Your task to perform on an android device: change the clock display to analog Image 0: 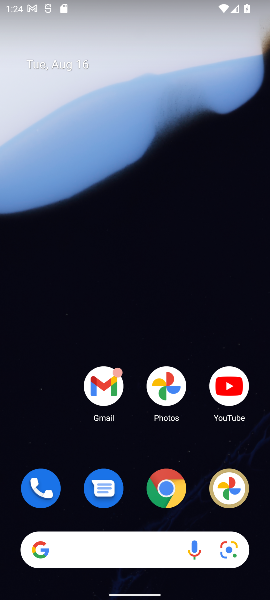
Step 0: drag from (64, 350) to (119, 116)
Your task to perform on an android device: change the clock display to analog Image 1: 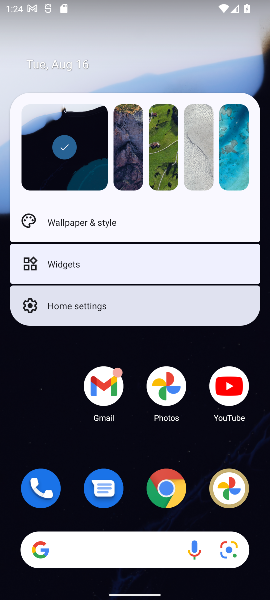
Step 1: click (45, 361)
Your task to perform on an android device: change the clock display to analog Image 2: 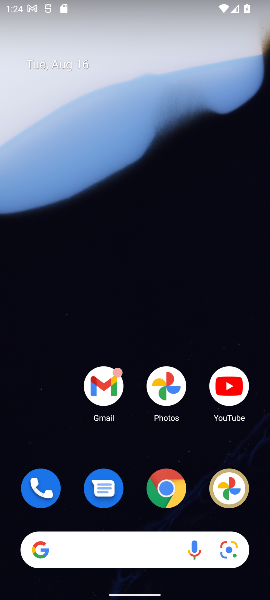
Step 2: drag from (151, 339) to (157, 114)
Your task to perform on an android device: change the clock display to analog Image 3: 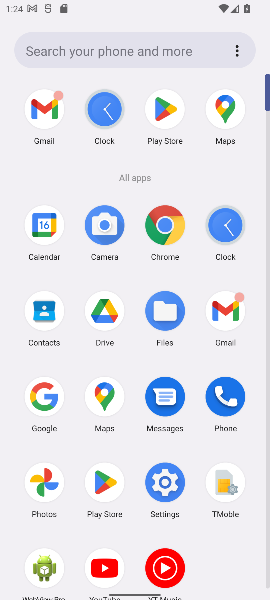
Step 3: click (161, 488)
Your task to perform on an android device: change the clock display to analog Image 4: 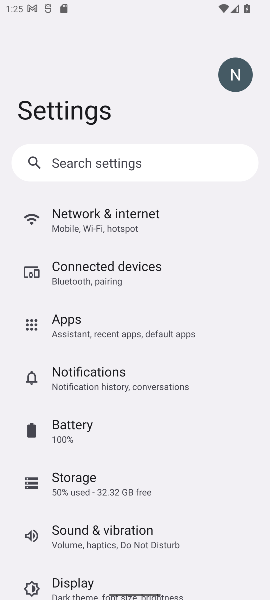
Step 4: drag from (97, 327) to (73, 196)
Your task to perform on an android device: change the clock display to analog Image 5: 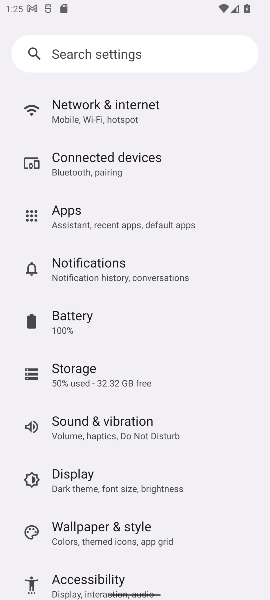
Step 5: click (114, 479)
Your task to perform on an android device: change the clock display to analog Image 6: 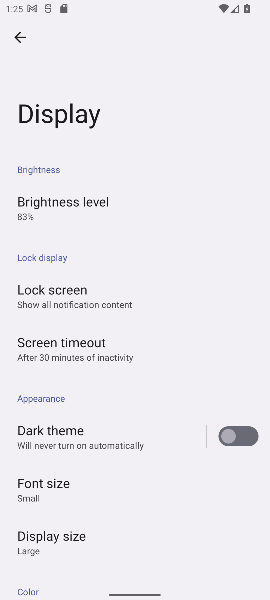
Step 6: task complete